Your task to perform on an android device: toggle sleep mode Image 0: 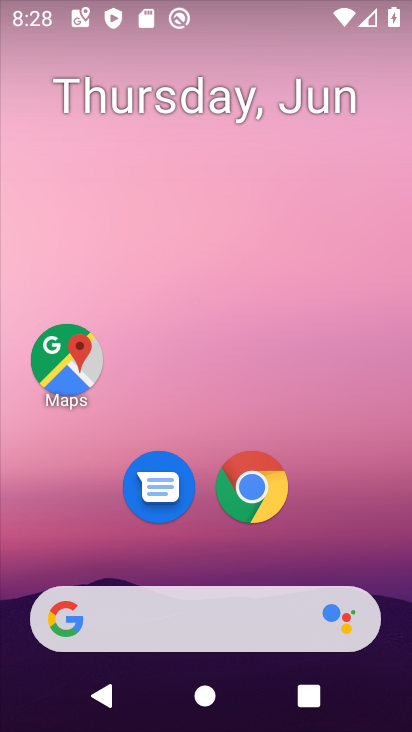
Step 0: drag from (232, 352) to (254, 123)
Your task to perform on an android device: toggle sleep mode Image 1: 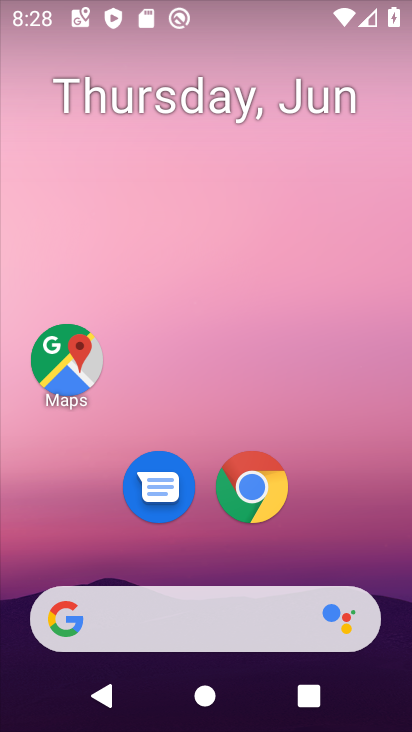
Step 1: drag from (215, 550) to (235, 74)
Your task to perform on an android device: toggle sleep mode Image 2: 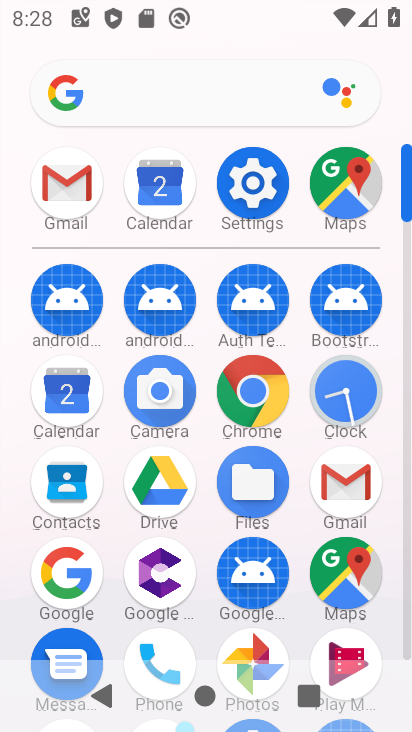
Step 2: click (246, 178)
Your task to perform on an android device: toggle sleep mode Image 3: 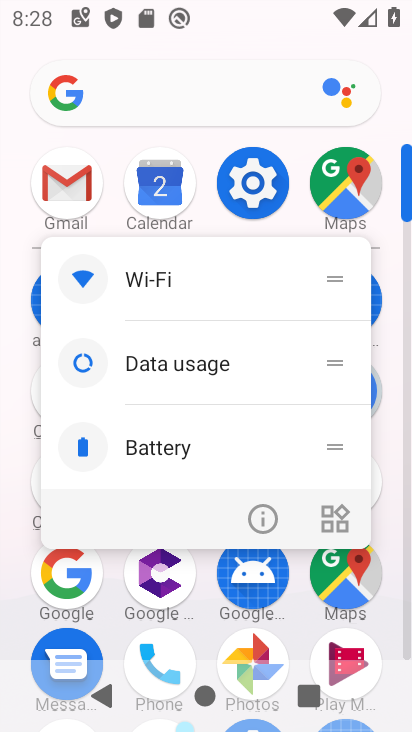
Step 3: click (259, 518)
Your task to perform on an android device: toggle sleep mode Image 4: 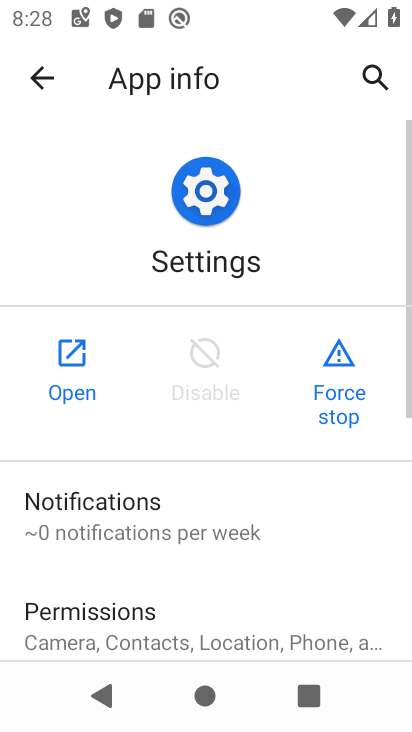
Step 4: click (69, 361)
Your task to perform on an android device: toggle sleep mode Image 5: 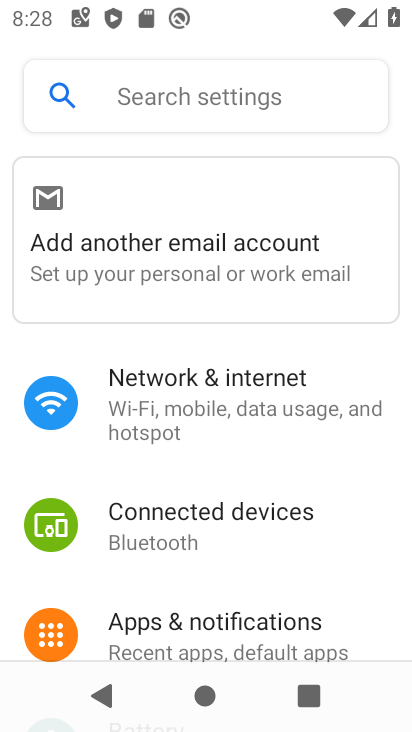
Step 5: drag from (201, 572) to (285, 36)
Your task to perform on an android device: toggle sleep mode Image 6: 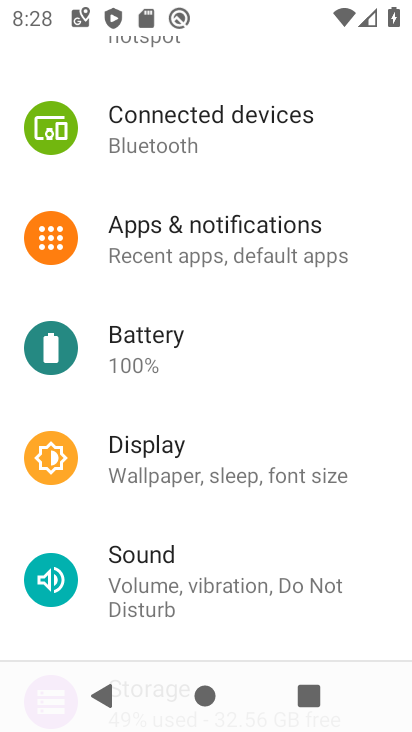
Step 6: click (259, 485)
Your task to perform on an android device: toggle sleep mode Image 7: 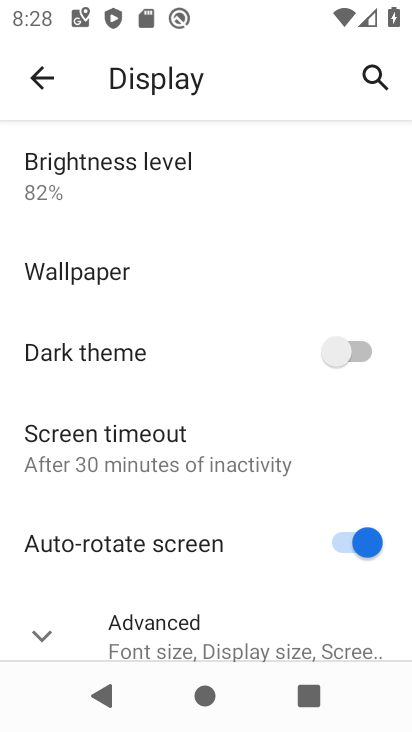
Step 7: drag from (136, 612) to (178, 202)
Your task to perform on an android device: toggle sleep mode Image 8: 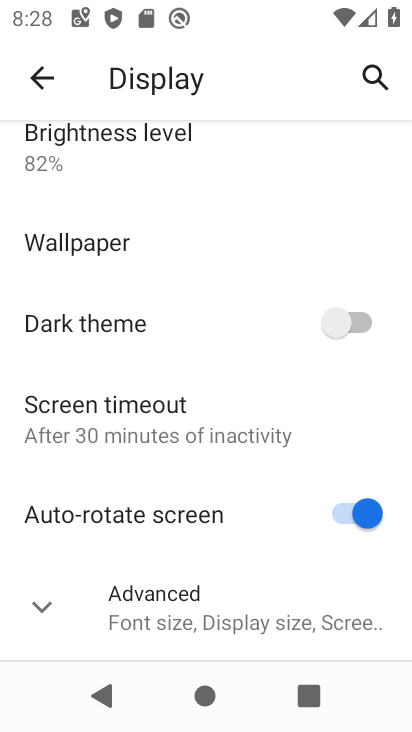
Step 8: click (137, 610)
Your task to perform on an android device: toggle sleep mode Image 9: 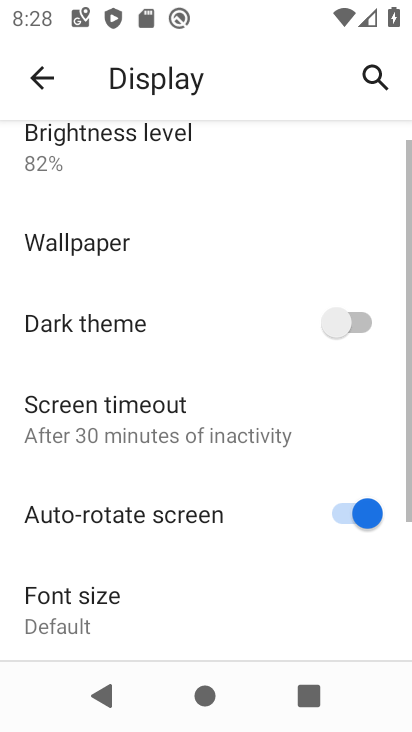
Step 9: click (213, 420)
Your task to perform on an android device: toggle sleep mode Image 10: 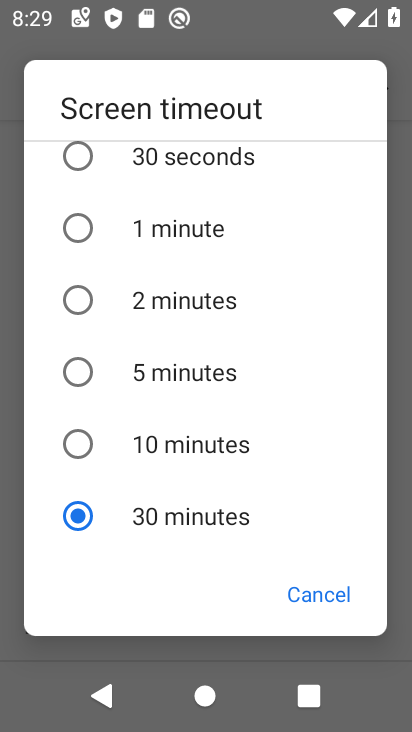
Step 10: task complete